Your task to perform on an android device: What's the weather going to be tomorrow? Image 0: 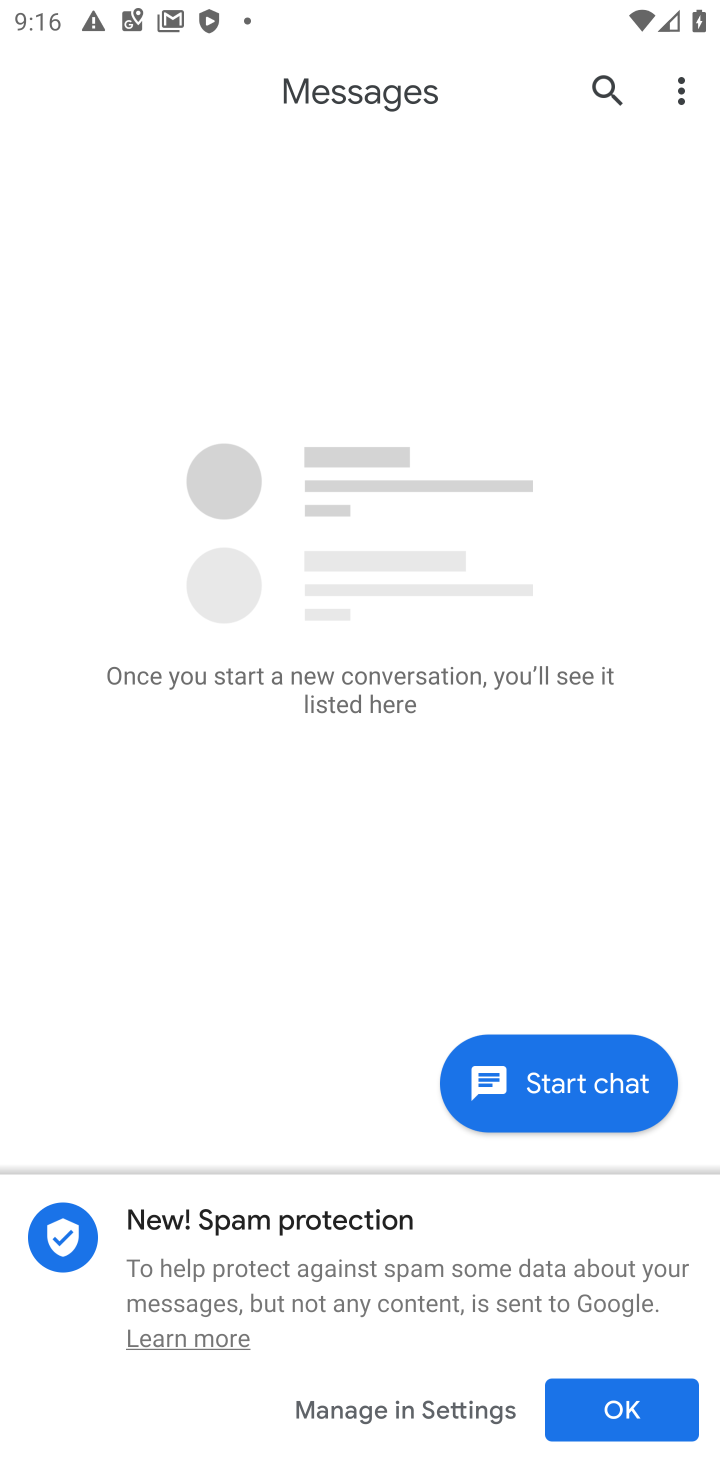
Step 0: press home button
Your task to perform on an android device: What's the weather going to be tomorrow? Image 1: 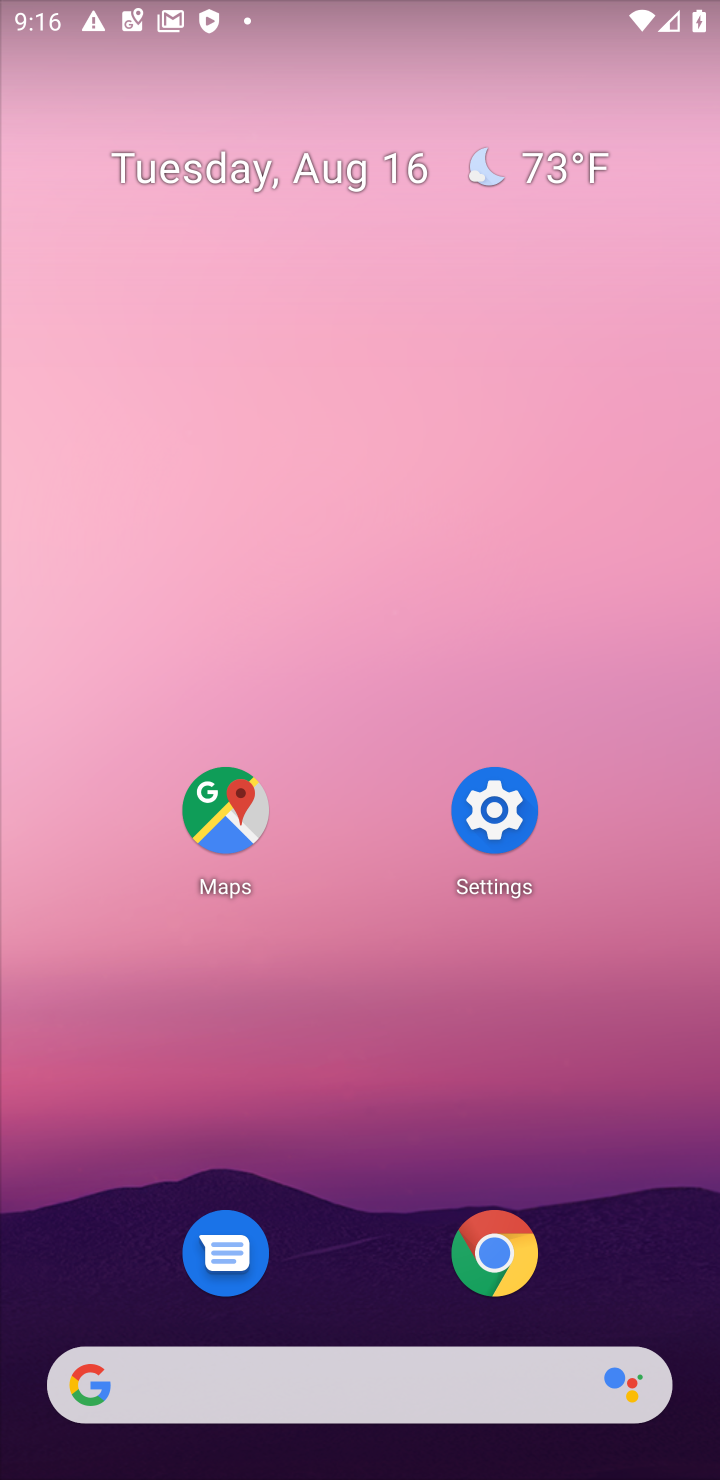
Step 1: click (254, 1370)
Your task to perform on an android device: What's the weather going to be tomorrow? Image 2: 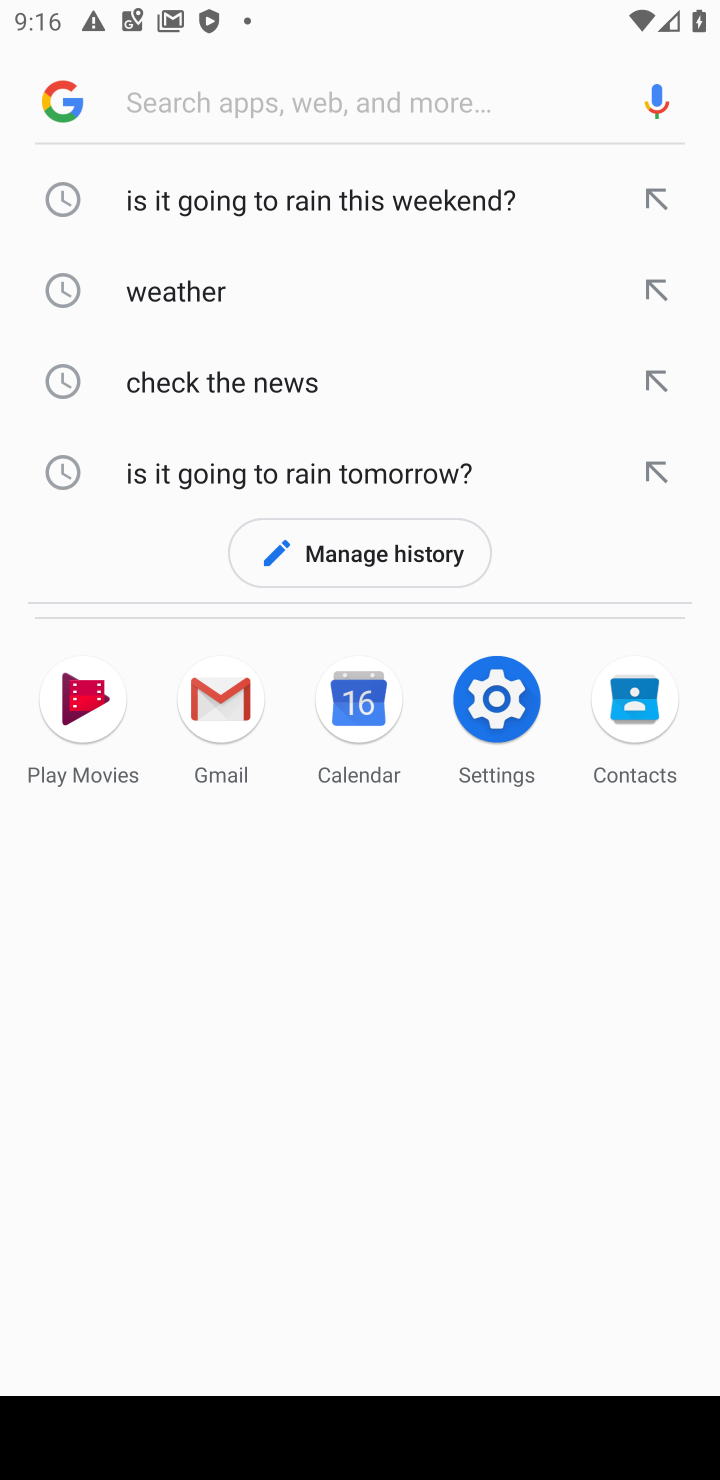
Step 2: click (184, 291)
Your task to perform on an android device: What's the weather going to be tomorrow? Image 3: 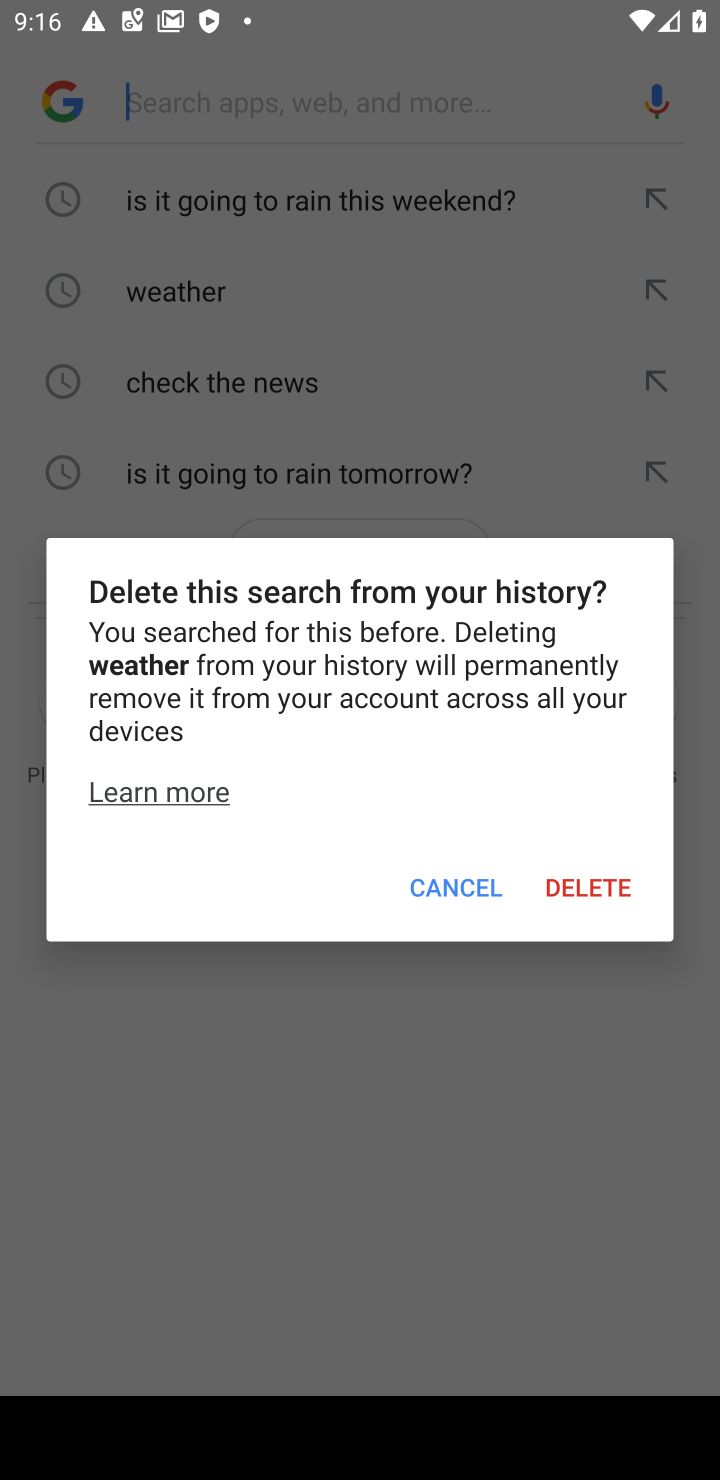
Step 3: click (416, 884)
Your task to perform on an android device: What's the weather going to be tomorrow? Image 4: 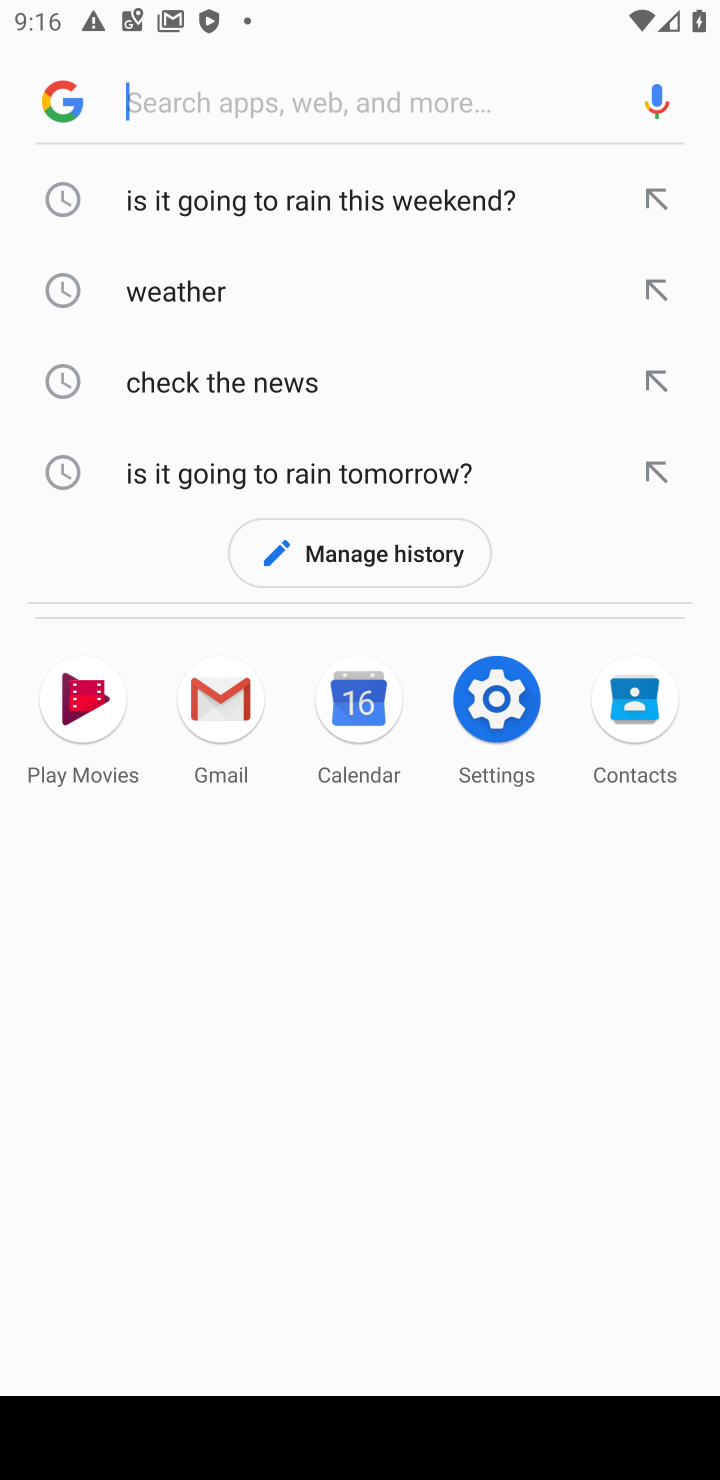
Step 4: click (300, 285)
Your task to perform on an android device: What's the weather going to be tomorrow? Image 5: 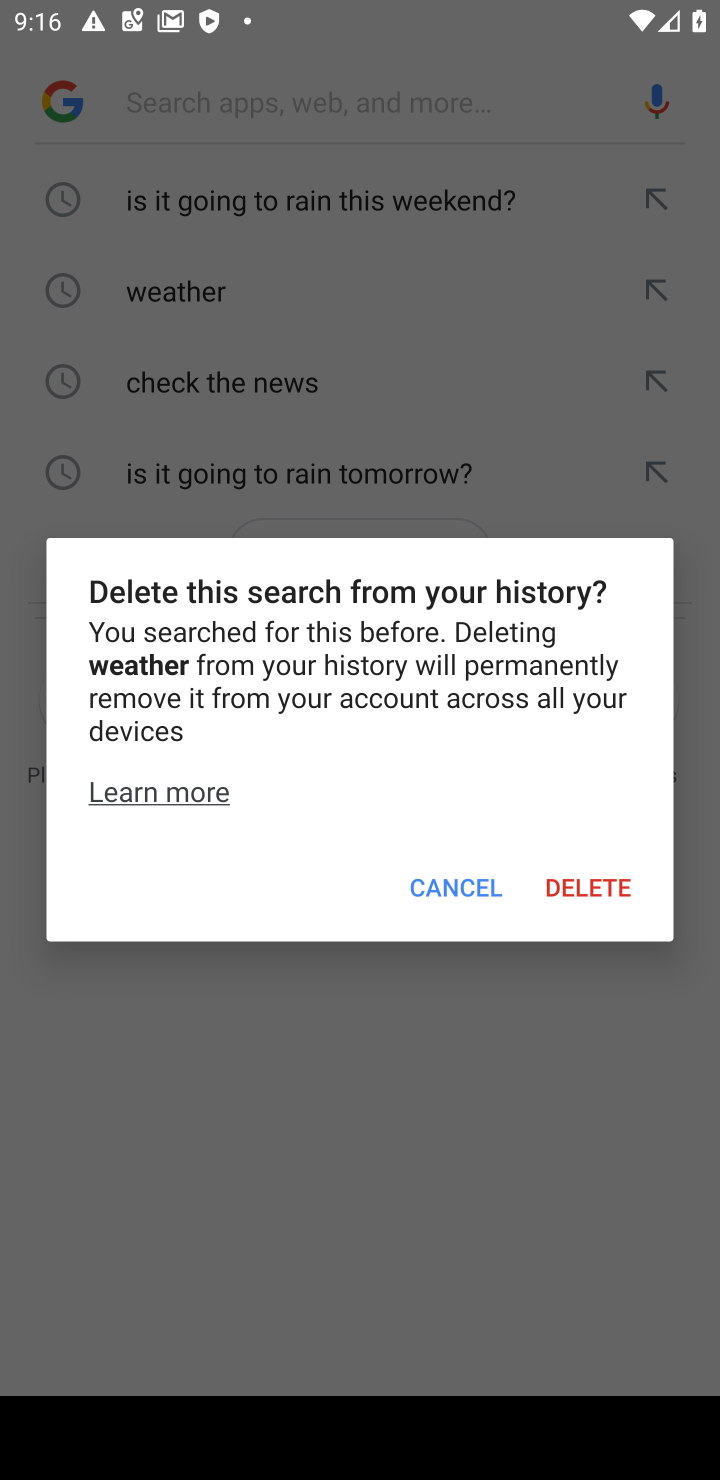
Step 5: click (441, 880)
Your task to perform on an android device: What's the weather going to be tomorrow? Image 6: 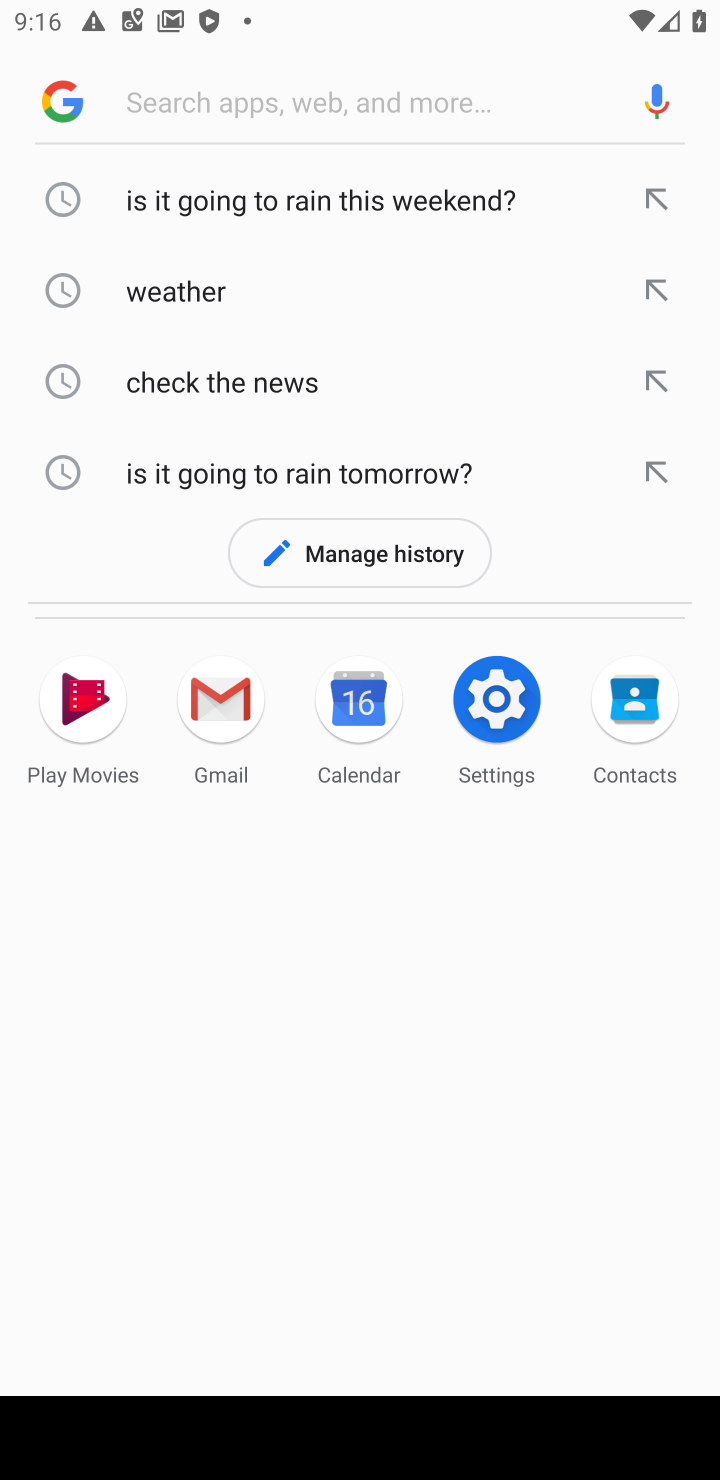
Step 6: click (140, 289)
Your task to perform on an android device: What's the weather going to be tomorrow? Image 7: 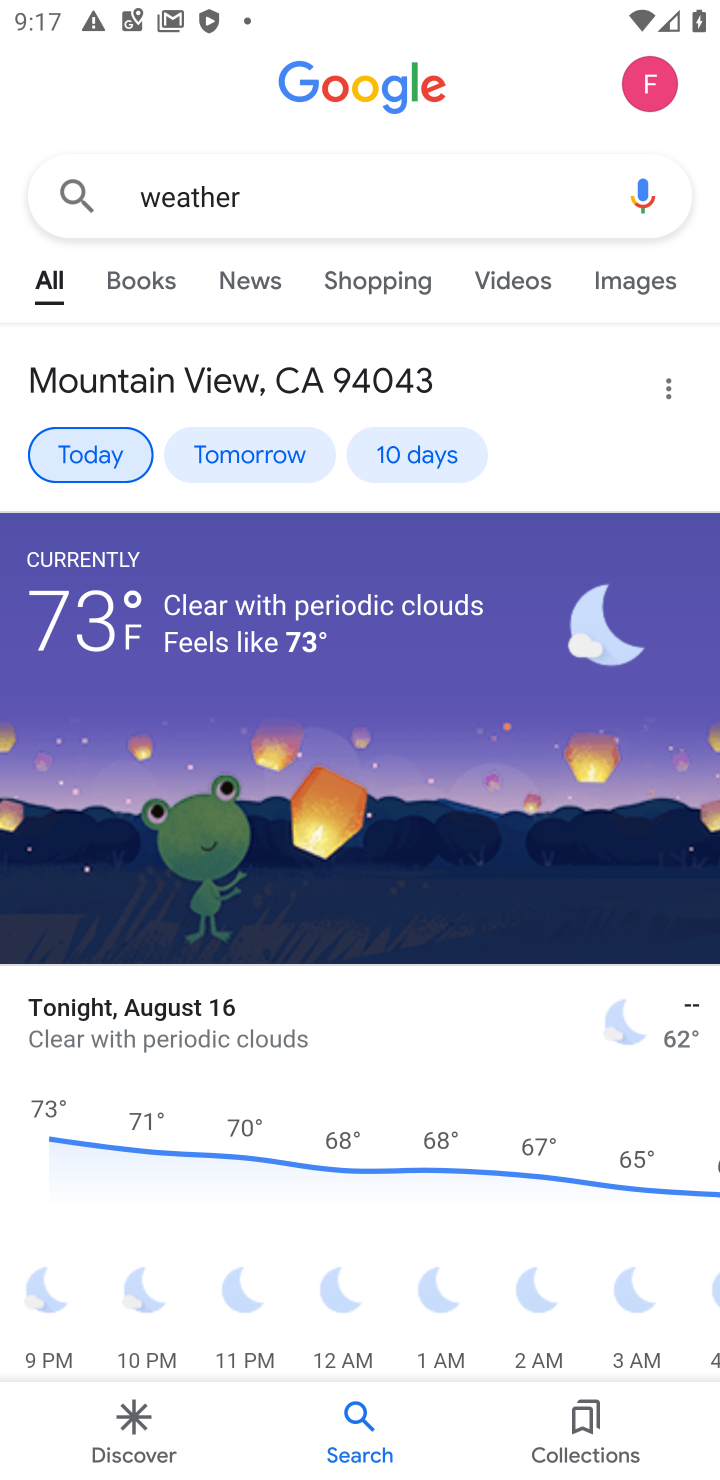
Step 7: click (294, 452)
Your task to perform on an android device: What's the weather going to be tomorrow? Image 8: 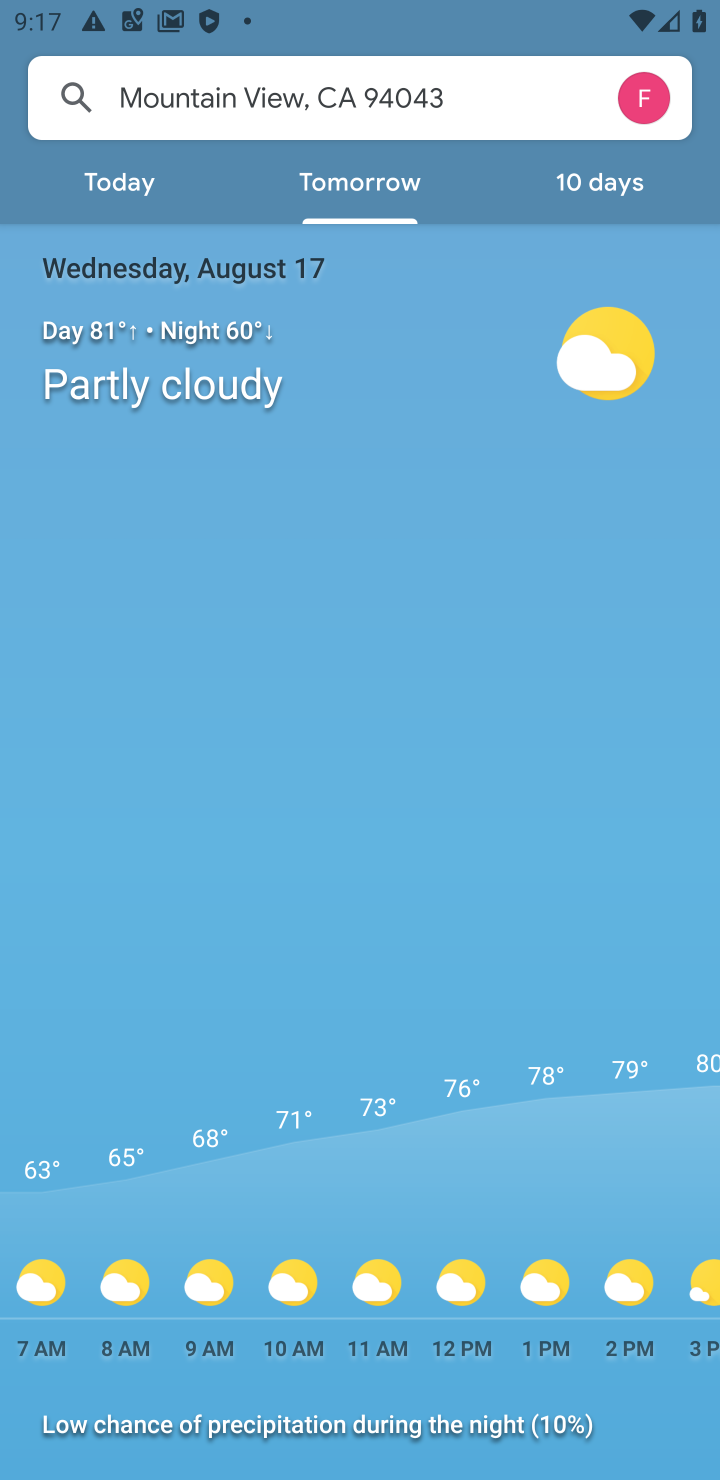
Step 8: task complete